Your task to perform on an android device: Add "jbl flip 4" to the cart on target, then select checkout. Image 0: 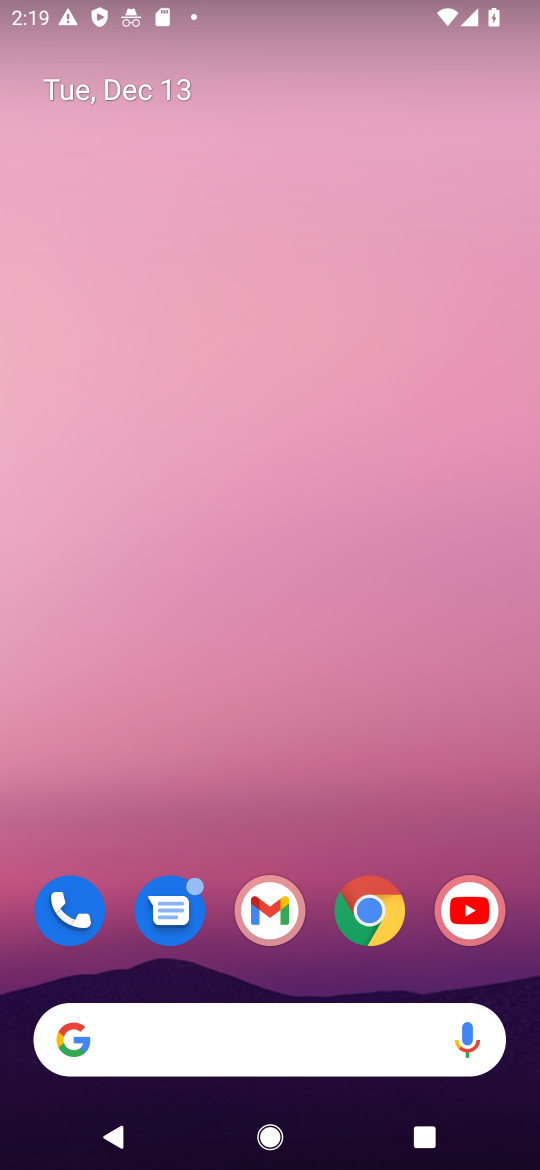
Step 0: click (373, 896)
Your task to perform on an android device: Add "jbl flip 4" to the cart on target, then select checkout. Image 1: 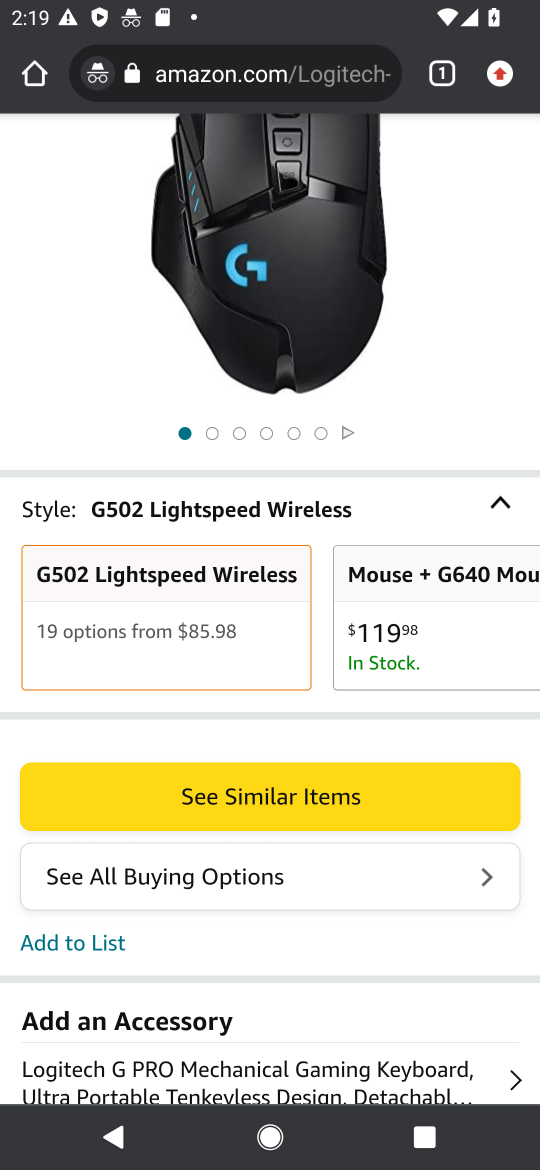
Step 1: click (258, 83)
Your task to perform on an android device: Add "jbl flip 4" to the cart on target, then select checkout. Image 2: 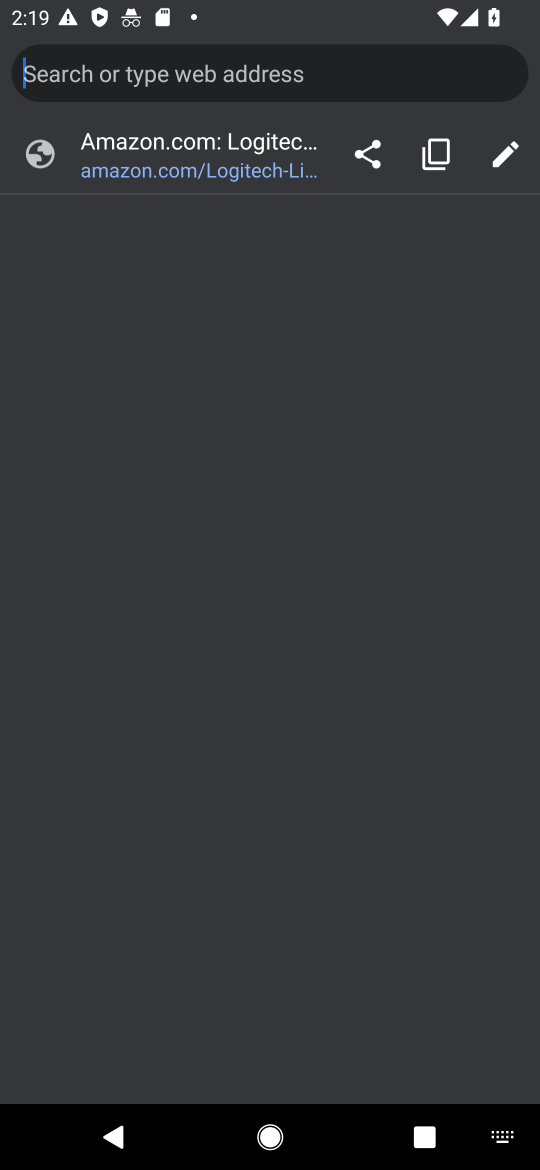
Step 2: type "TARGET"
Your task to perform on an android device: Add "jbl flip 4" to the cart on target, then select checkout. Image 3: 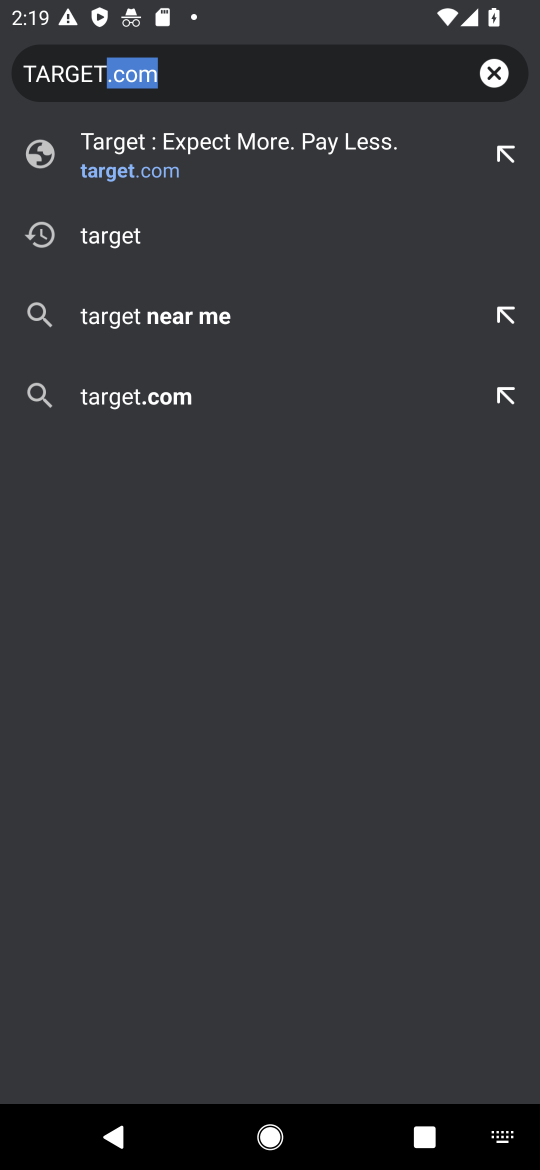
Step 3: click (231, 166)
Your task to perform on an android device: Add "jbl flip 4" to the cart on target, then select checkout. Image 4: 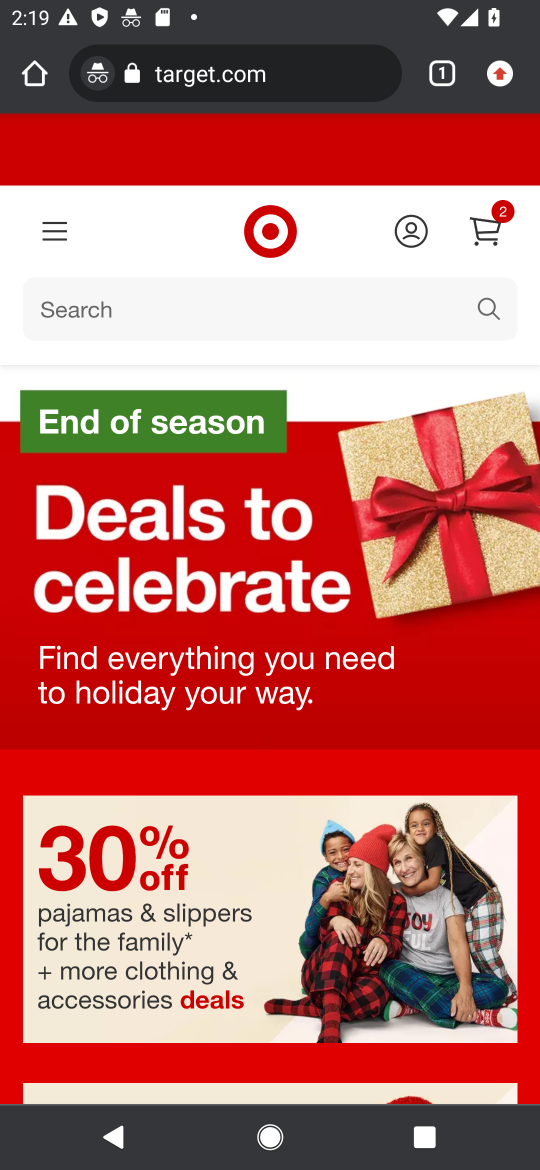
Step 4: click (319, 313)
Your task to perform on an android device: Add "jbl flip 4" to the cart on target, then select checkout. Image 5: 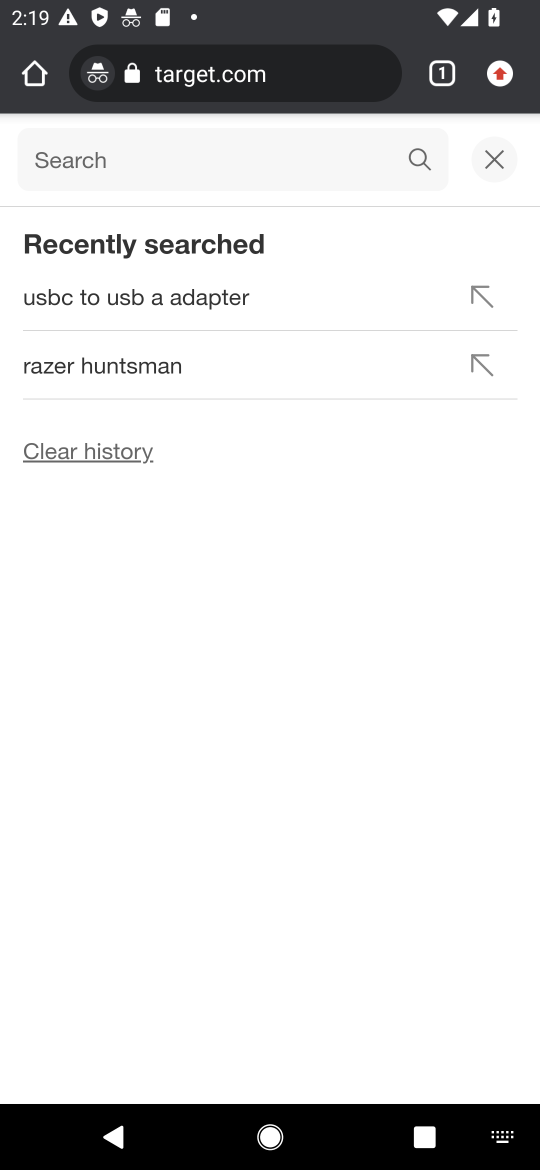
Step 5: type "JBL FLIP 4"
Your task to perform on an android device: Add "jbl flip 4" to the cart on target, then select checkout. Image 6: 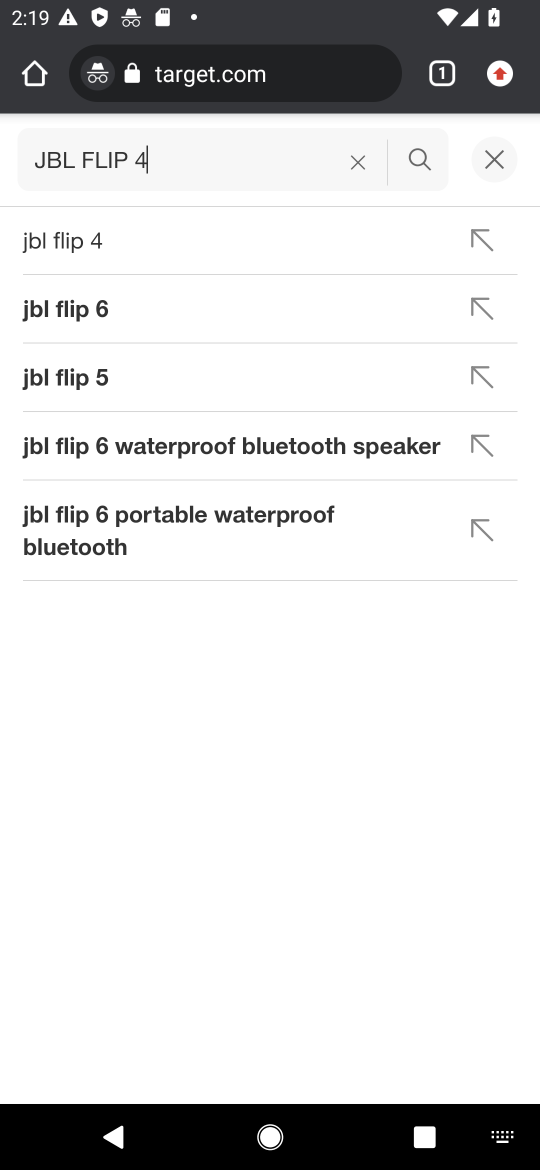
Step 6: click (82, 237)
Your task to perform on an android device: Add "jbl flip 4" to the cart on target, then select checkout. Image 7: 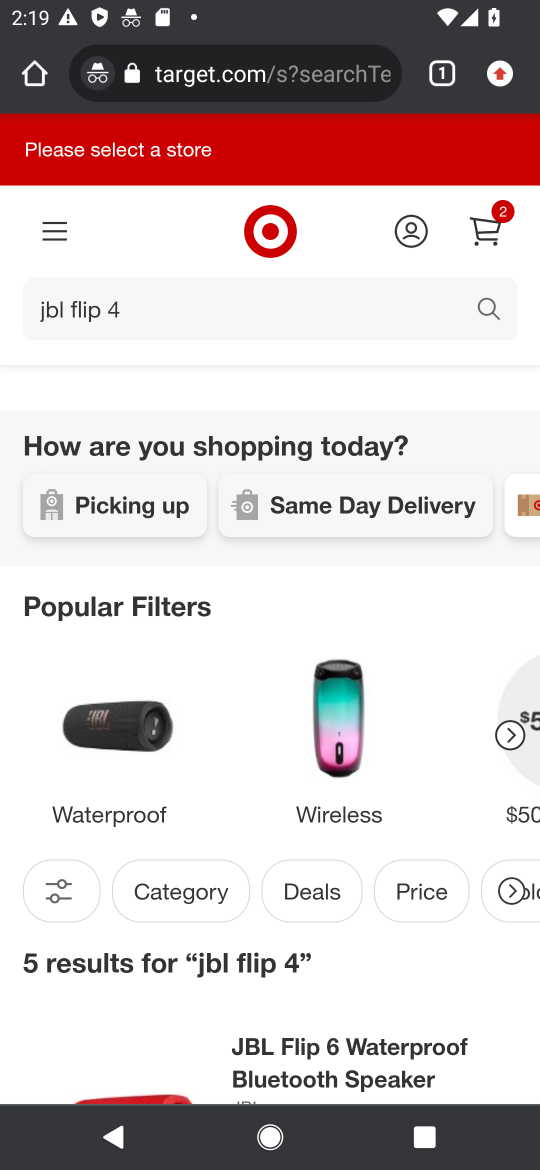
Step 7: drag from (414, 992) to (388, 343)
Your task to perform on an android device: Add "jbl flip 4" to the cart on target, then select checkout. Image 8: 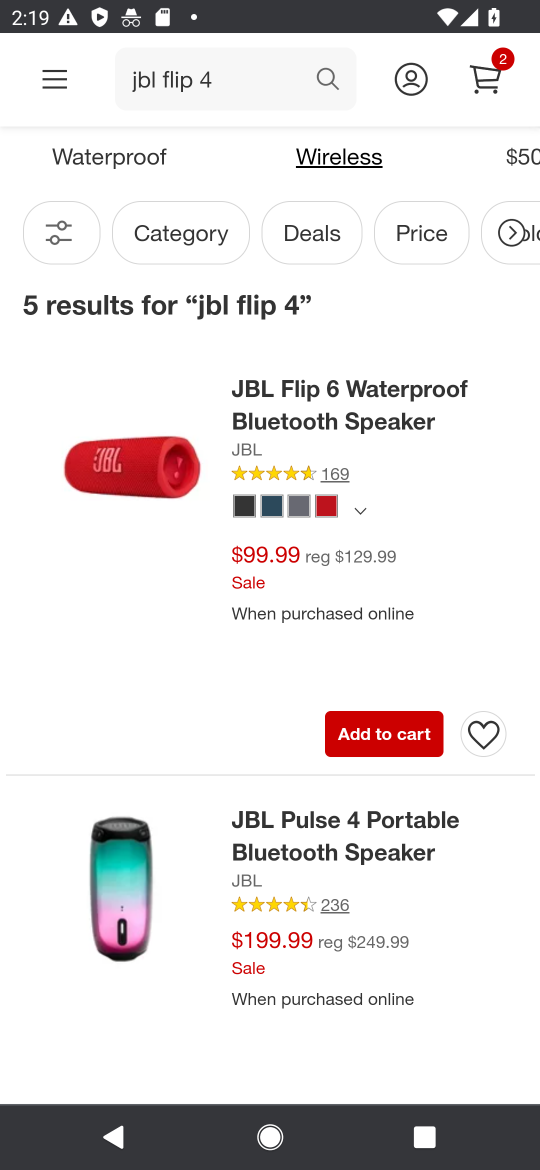
Step 8: click (372, 737)
Your task to perform on an android device: Add "jbl flip 4" to the cart on target, then select checkout. Image 9: 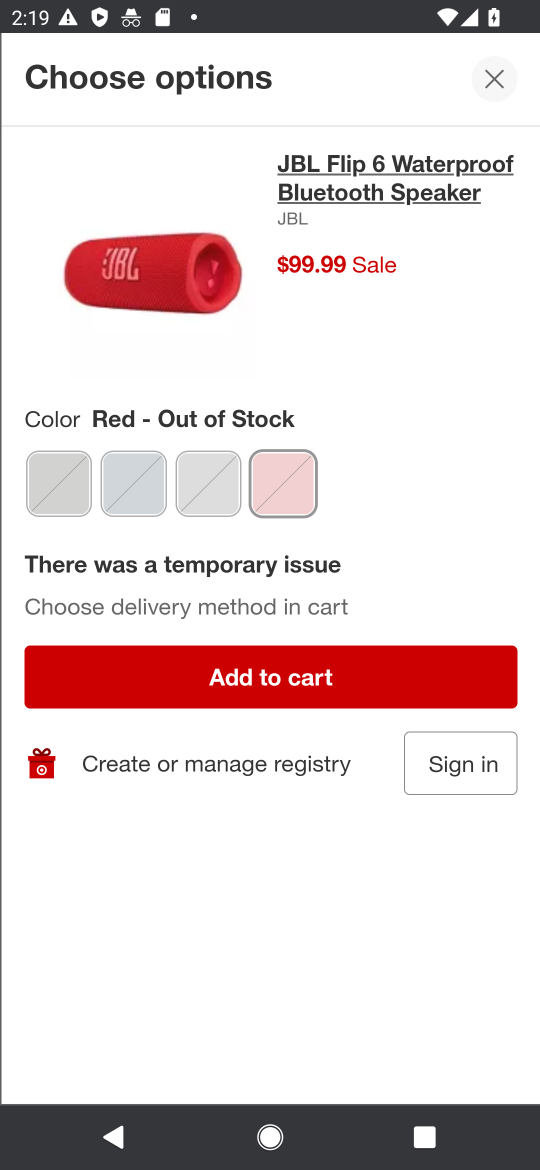
Step 9: click (204, 680)
Your task to perform on an android device: Add "jbl flip 4" to the cart on target, then select checkout. Image 10: 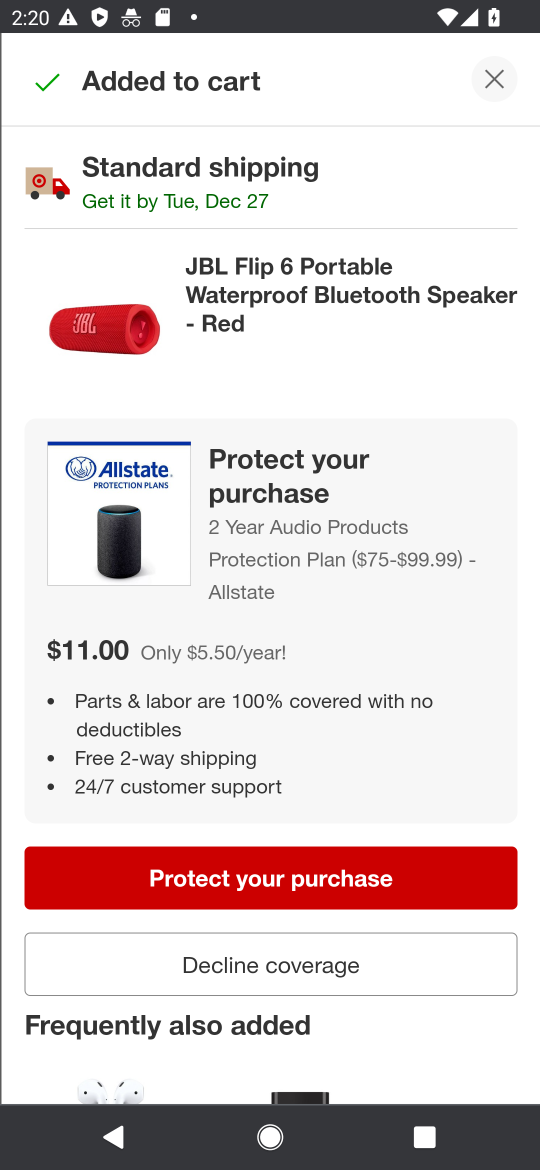
Step 10: click (248, 963)
Your task to perform on an android device: Add "jbl flip 4" to the cart on target, then select checkout. Image 11: 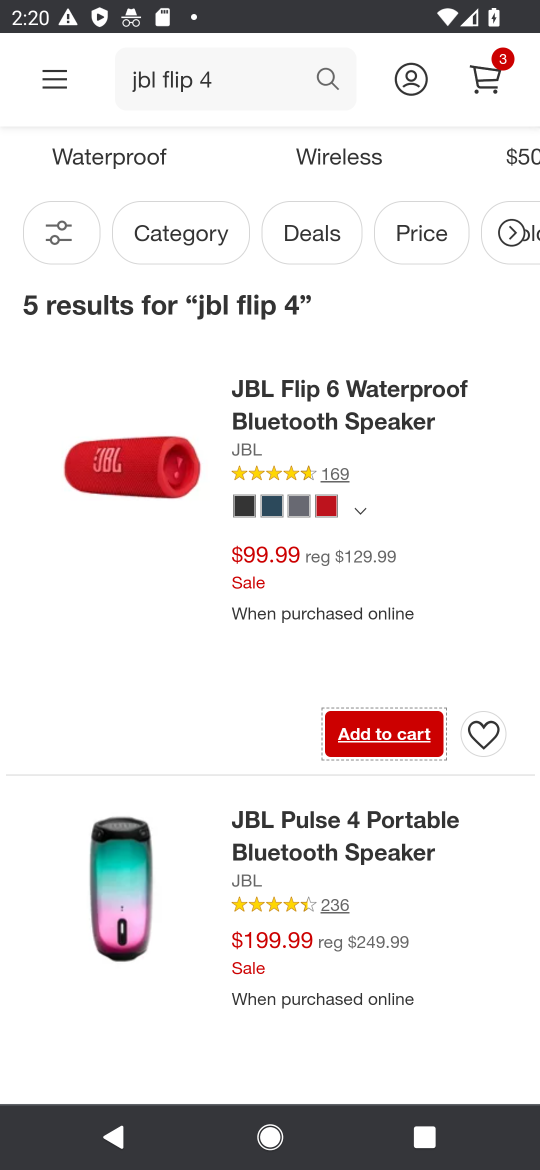
Step 11: click (389, 732)
Your task to perform on an android device: Add "jbl flip 4" to the cart on target, then select checkout. Image 12: 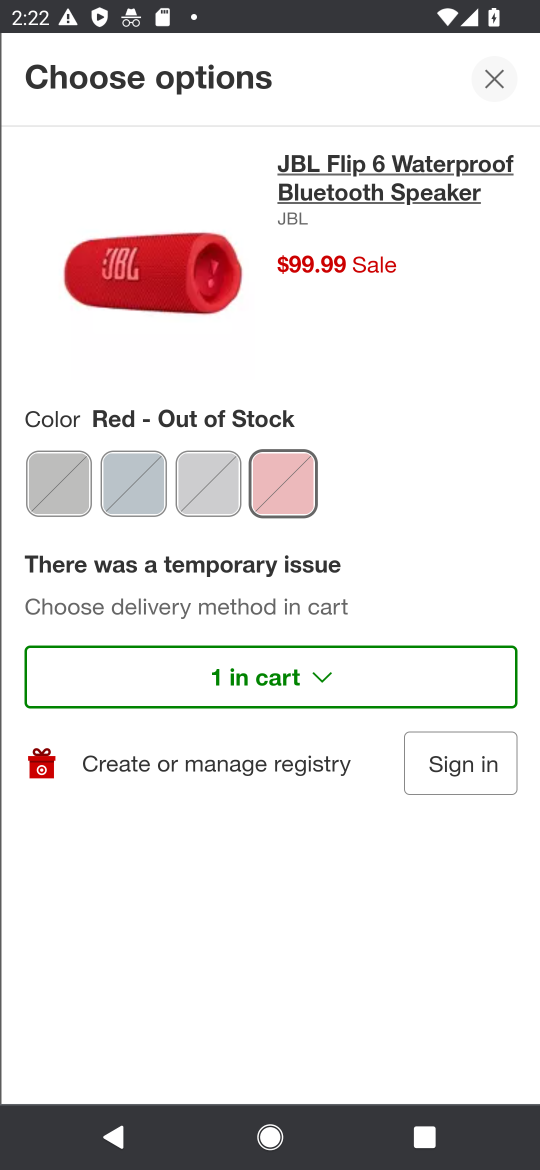
Step 12: task complete